Your task to perform on an android device: Search for Italian restaurants on Maps Image 0: 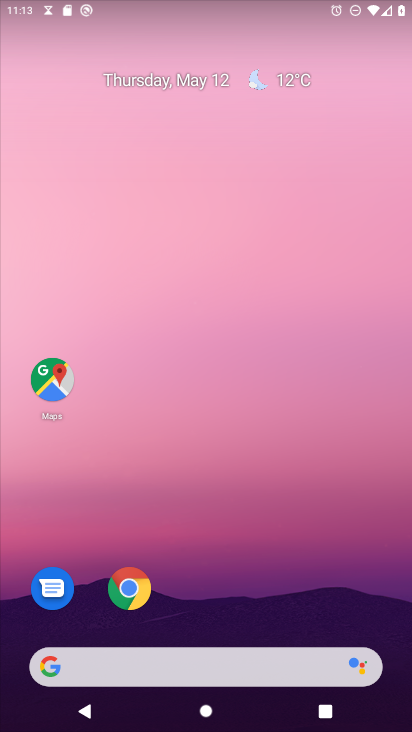
Step 0: click (51, 380)
Your task to perform on an android device: Search for Italian restaurants on Maps Image 1: 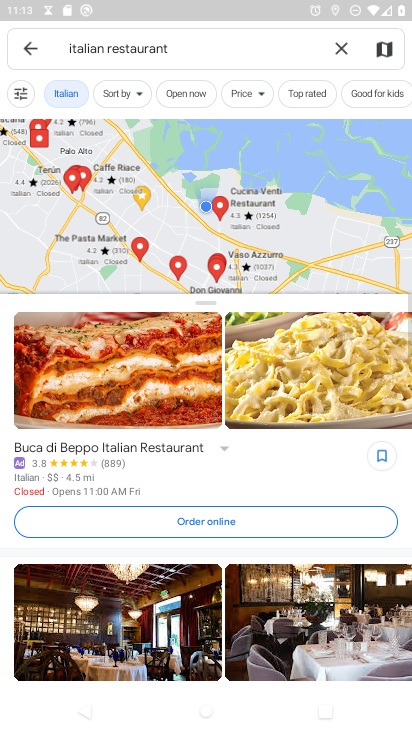
Step 1: click (341, 47)
Your task to perform on an android device: Search for Italian restaurants on Maps Image 2: 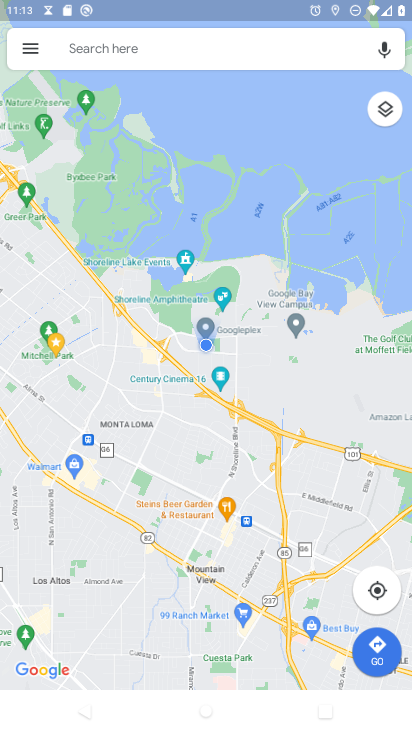
Step 2: type "Italian restaurants"
Your task to perform on an android device: Search for Italian restaurants on Maps Image 3: 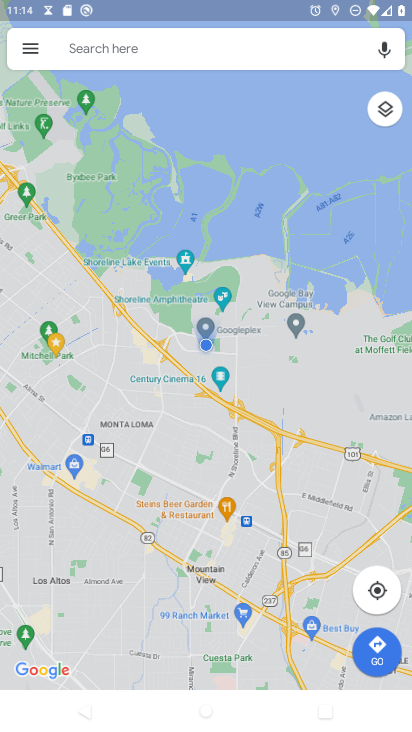
Step 3: click (200, 31)
Your task to perform on an android device: Search for Italian restaurants on Maps Image 4: 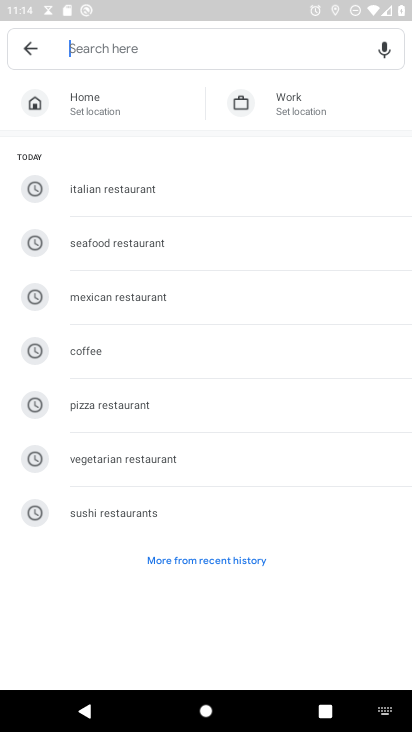
Step 4: type "Italian restaurants"
Your task to perform on an android device: Search for Italian restaurants on Maps Image 5: 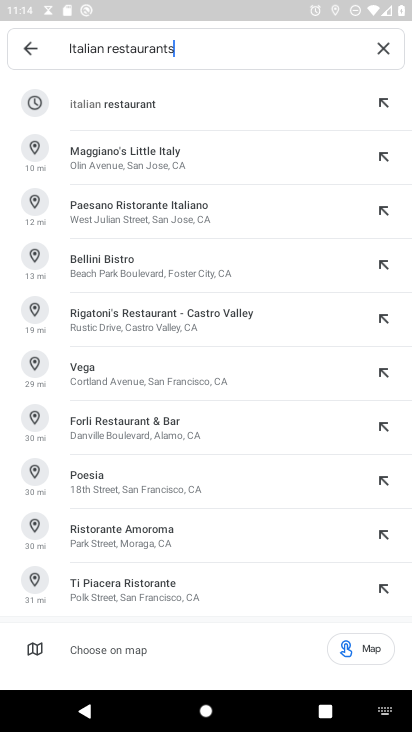
Step 5: click (142, 109)
Your task to perform on an android device: Search for Italian restaurants on Maps Image 6: 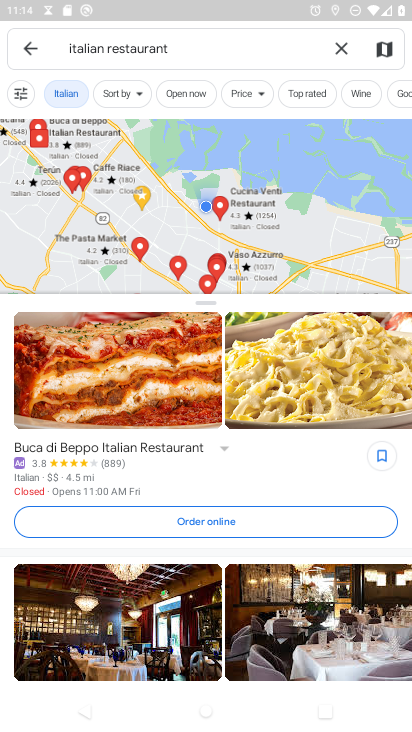
Step 6: task complete